Your task to perform on an android device: toggle pop-ups in chrome Image 0: 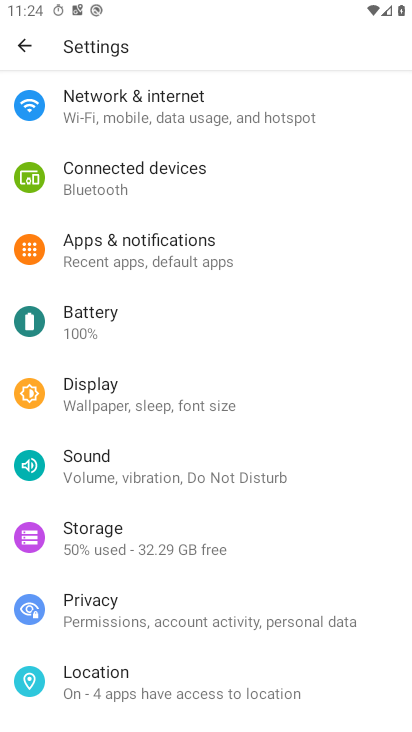
Step 0: press home button
Your task to perform on an android device: toggle pop-ups in chrome Image 1: 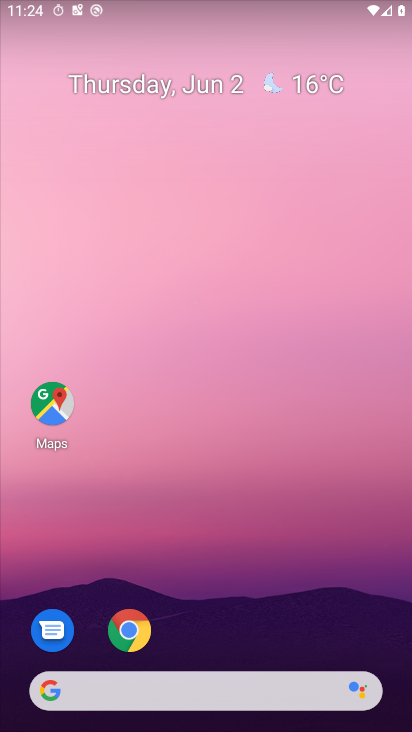
Step 1: click (130, 629)
Your task to perform on an android device: toggle pop-ups in chrome Image 2: 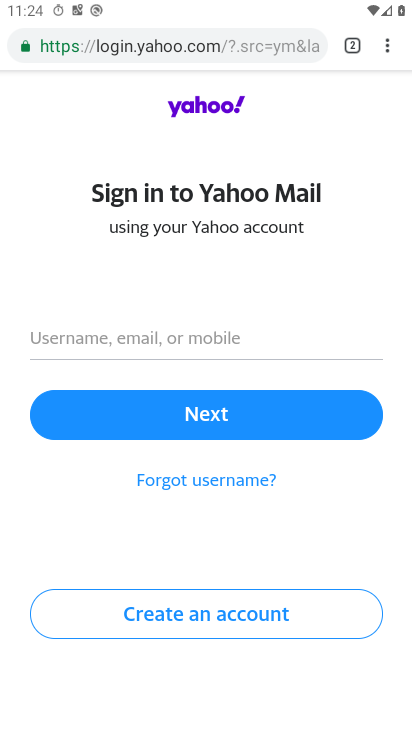
Step 2: click (385, 39)
Your task to perform on an android device: toggle pop-ups in chrome Image 3: 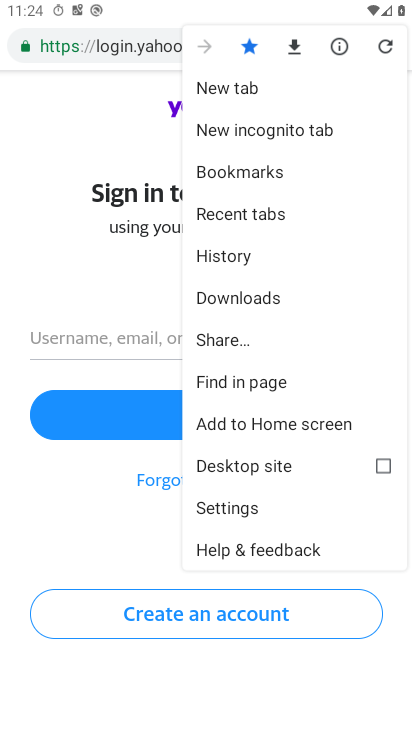
Step 3: click (237, 506)
Your task to perform on an android device: toggle pop-ups in chrome Image 4: 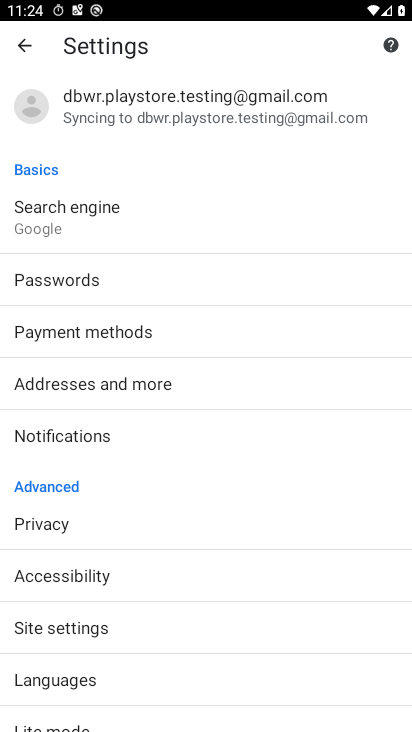
Step 4: click (99, 647)
Your task to perform on an android device: toggle pop-ups in chrome Image 5: 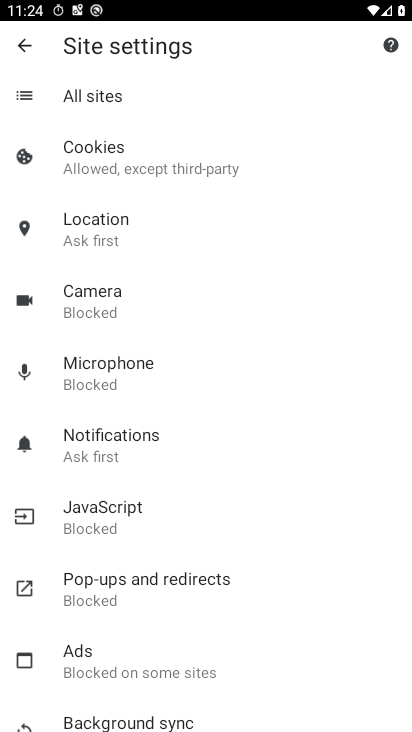
Step 5: click (123, 581)
Your task to perform on an android device: toggle pop-ups in chrome Image 6: 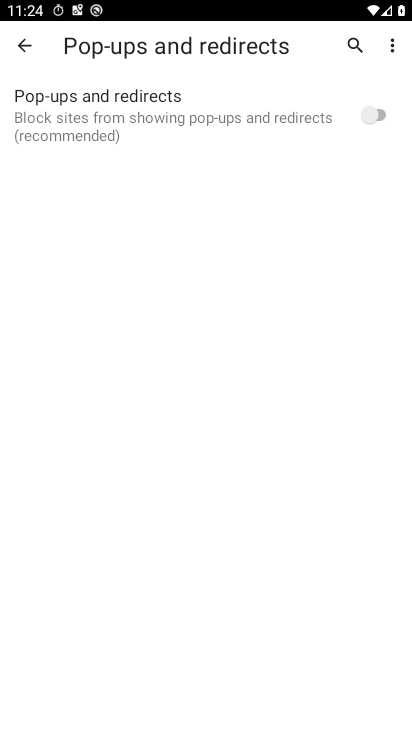
Step 6: click (391, 112)
Your task to perform on an android device: toggle pop-ups in chrome Image 7: 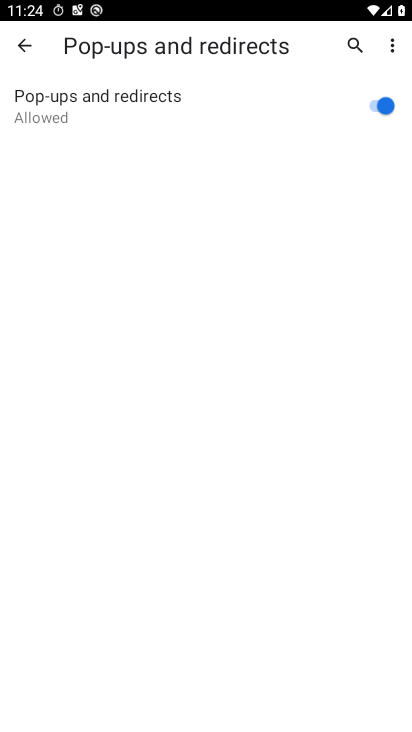
Step 7: task complete